Your task to perform on an android device: open app "Contacts" Image 0: 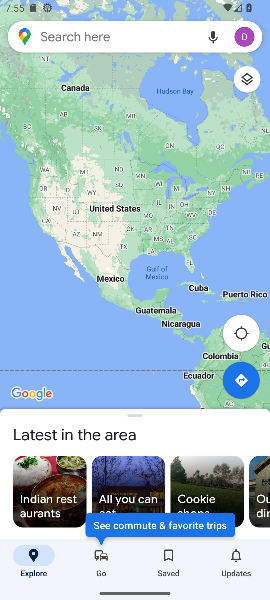
Step 0: press back button
Your task to perform on an android device: open app "Contacts" Image 1: 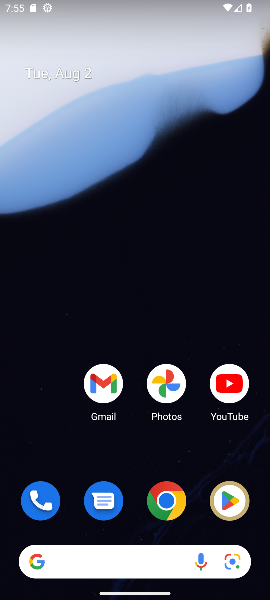
Step 1: click (228, 502)
Your task to perform on an android device: open app "Contacts" Image 2: 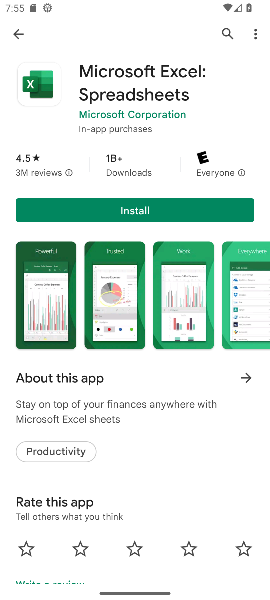
Step 2: press back button
Your task to perform on an android device: open app "Contacts" Image 3: 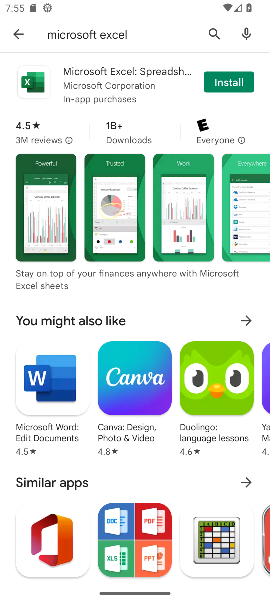
Step 3: press back button
Your task to perform on an android device: open app "Contacts" Image 4: 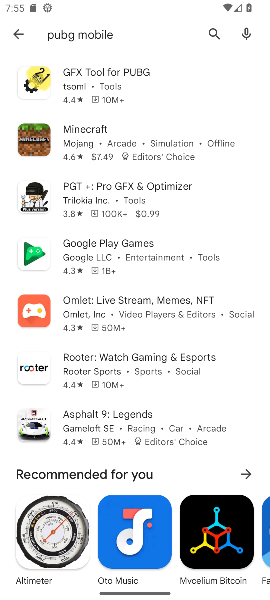
Step 4: press back button
Your task to perform on an android device: open app "Contacts" Image 5: 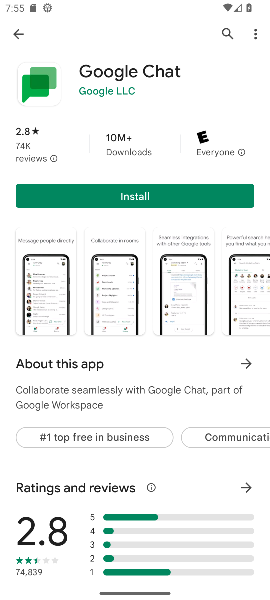
Step 5: press back button
Your task to perform on an android device: open app "Contacts" Image 6: 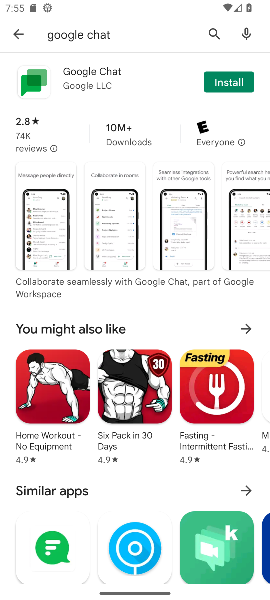
Step 6: press back button
Your task to perform on an android device: open app "Contacts" Image 7: 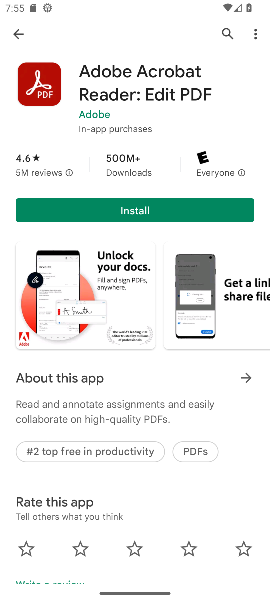
Step 7: press back button
Your task to perform on an android device: open app "Contacts" Image 8: 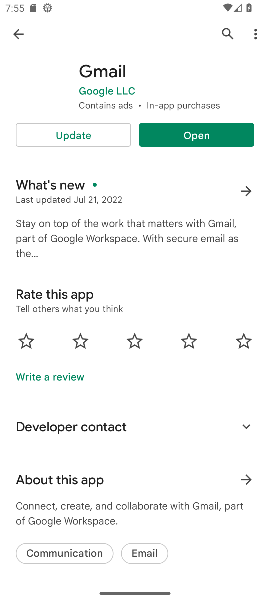
Step 8: press back button
Your task to perform on an android device: open app "Contacts" Image 9: 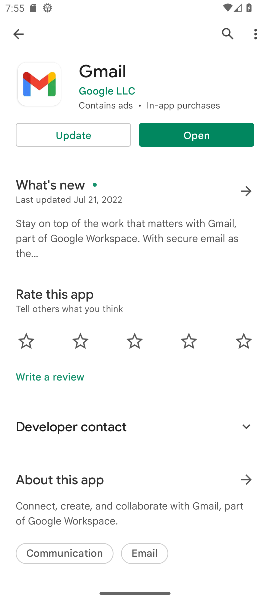
Step 9: press back button
Your task to perform on an android device: open app "Contacts" Image 10: 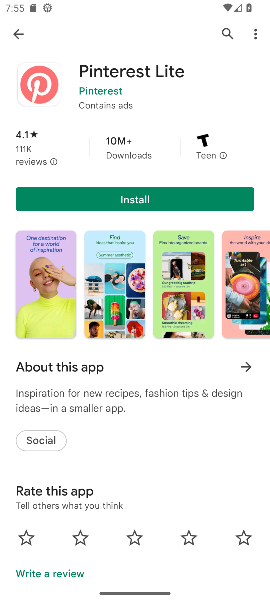
Step 10: click (20, 35)
Your task to perform on an android device: open app "Contacts" Image 11: 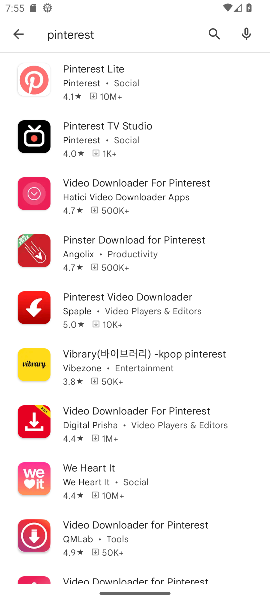
Step 11: click (21, 34)
Your task to perform on an android device: open app "Contacts" Image 12: 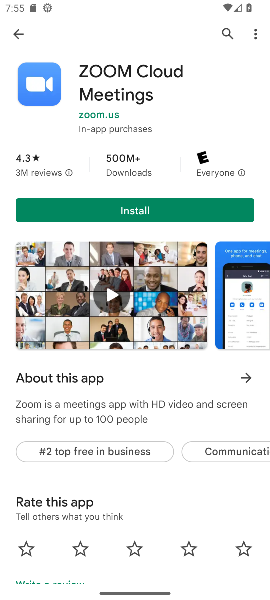
Step 12: click (22, 35)
Your task to perform on an android device: open app "Contacts" Image 13: 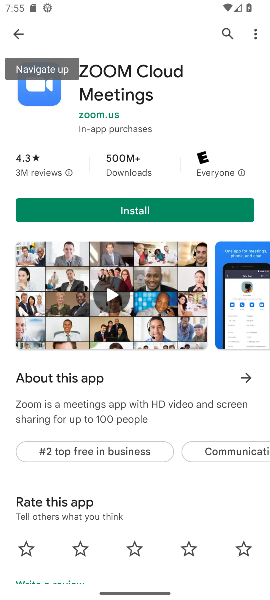
Step 13: click (22, 35)
Your task to perform on an android device: open app "Contacts" Image 14: 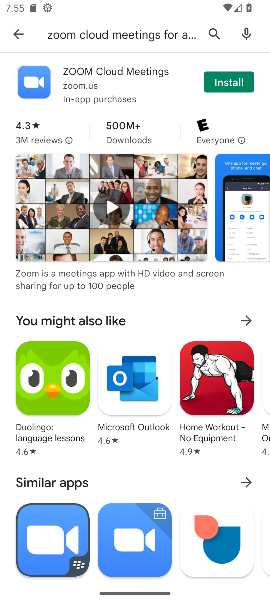
Step 14: click (20, 36)
Your task to perform on an android device: open app "Contacts" Image 15: 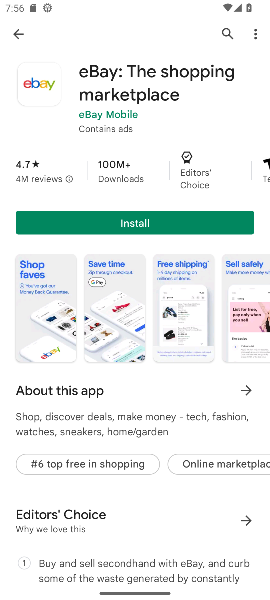
Step 15: press back button
Your task to perform on an android device: open app "Contacts" Image 16: 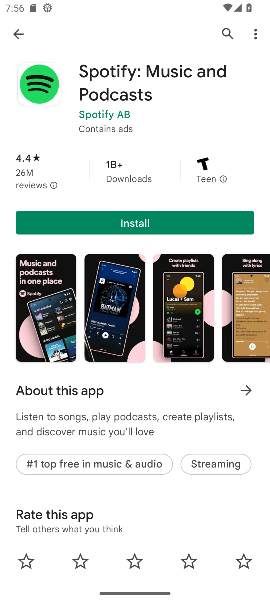
Step 16: press back button
Your task to perform on an android device: open app "Contacts" Image 17: 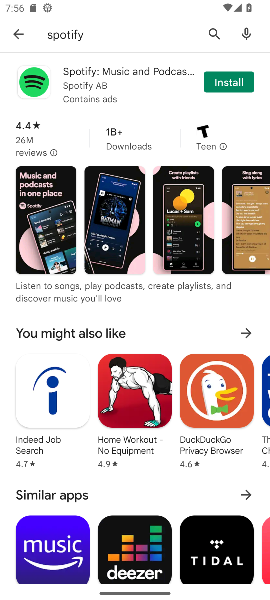
Step 17: press back button
Your task to perform on an android device: open app "Contacts" Image 18: 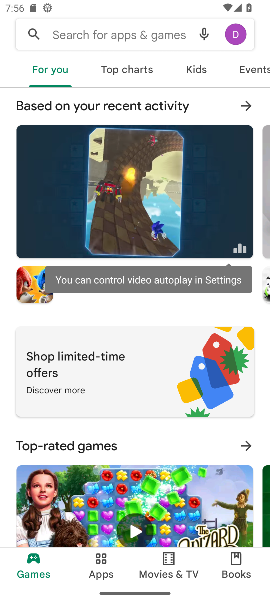
Step 18: click (94, 29)
Your task to perform on an android device: open app "Contacts" Image 19: 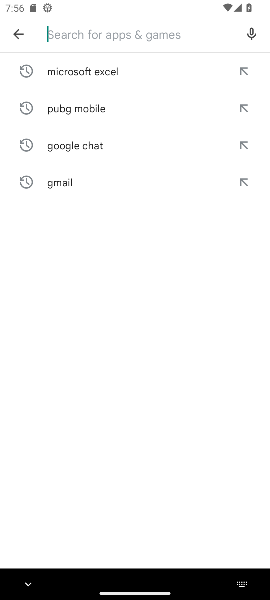
Step 19: type "contacts"
Your task to perform on an android device: open app "Contacts" Image 20: 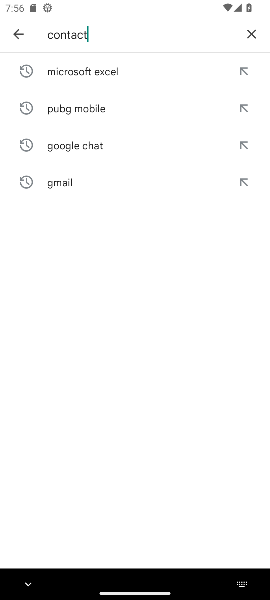
Step 20: type ""
Your task to perform on an android device: open app "Contacts" Image 21: 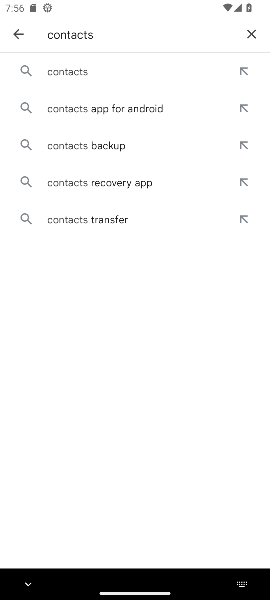
Step 21: click (98, 78)
Your task to perform on an android device: open app "Contacts" Image 22: 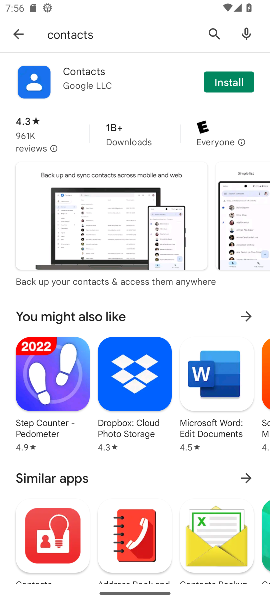
Step 22: task complete